Your task to perform on an android device: Go to CNN.com Image 0: 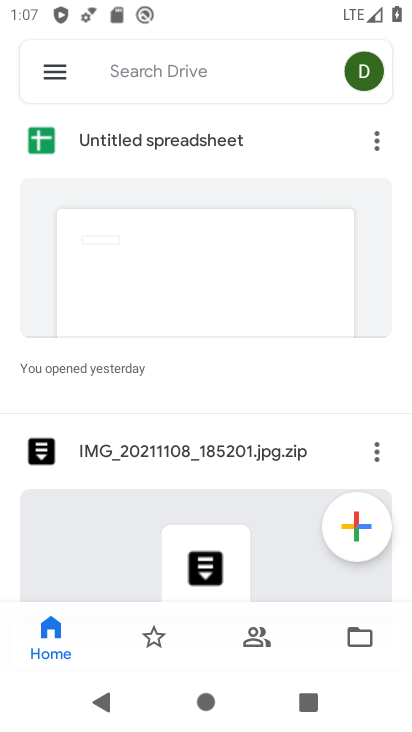
Step 0: press home button
Your task to perform on an android device: Go to CNN.com Image 1: 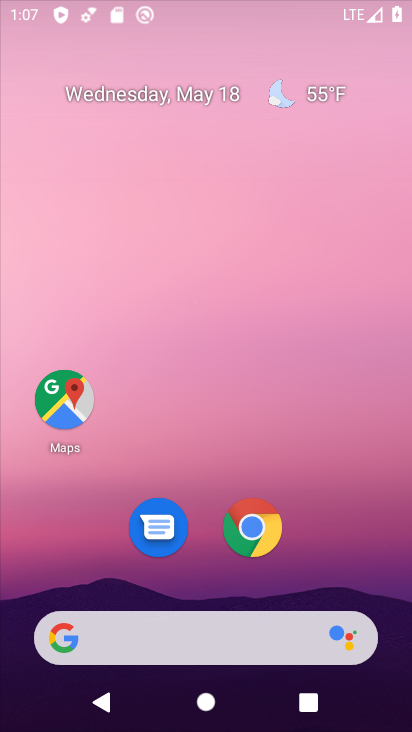
Step 1: click (240, 538)
Your task to perform on an android device: Go to CNN.com Image 2: 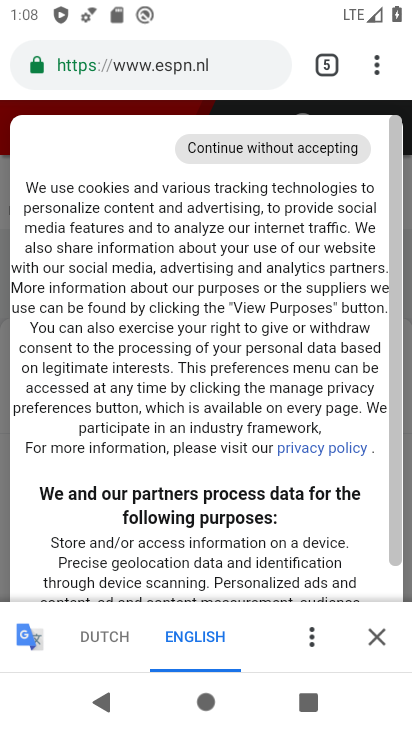
Step 2: click (100, 65)
Your task to perform on an android device: Go to CNN.com Image 3: 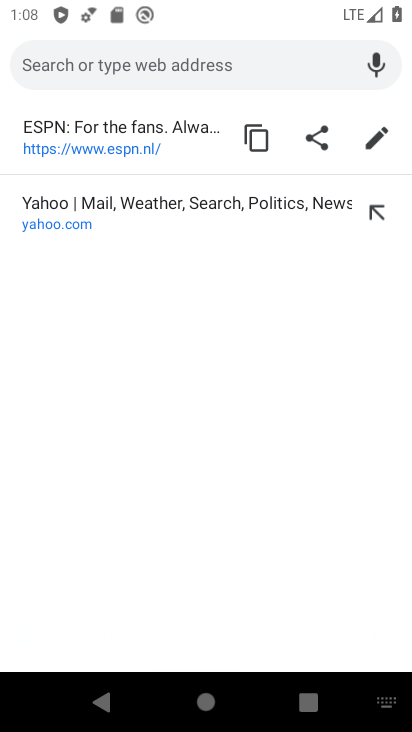
Step 3: type "CNN.com"
Your task to perform on an android device: Go to CNN.com Image 4: 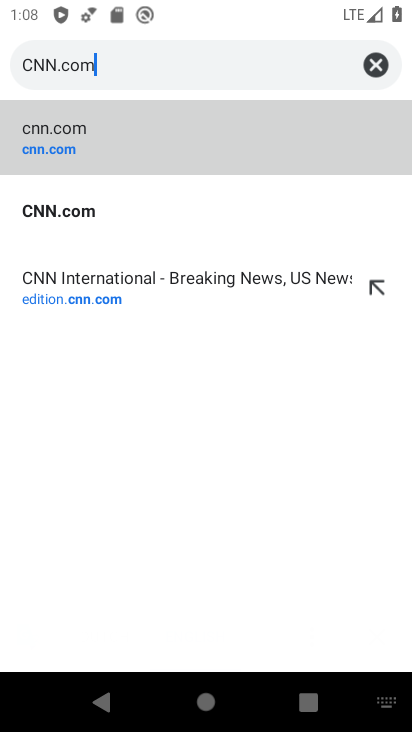
Step 4: click (212, 161)
Your task to perform on an android device: Go to CNN.com Image 5: 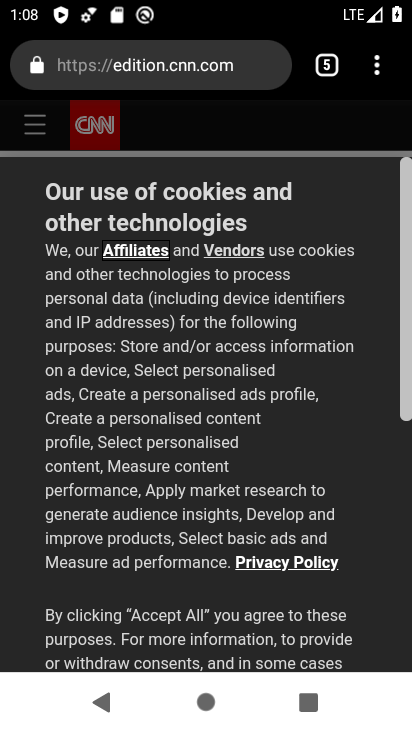
Step 5: task complete